Your task to perform on an android device: Open internet settings Image 0: 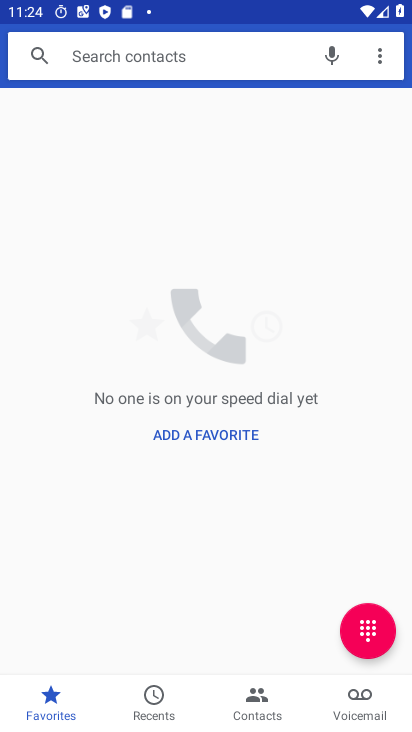
Step 0: press home button
Your task to perform on an android device: Open internet settings Image 1: 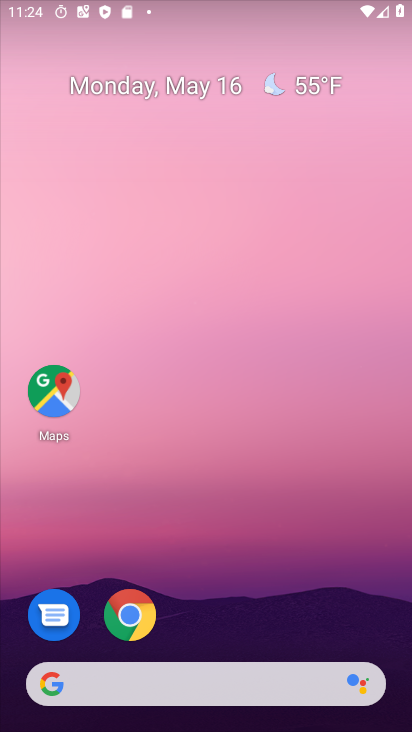
Step 1: drag from (263, 504) to (240, 22)
Your task to perform on an android device: Open internet settings Image 2: 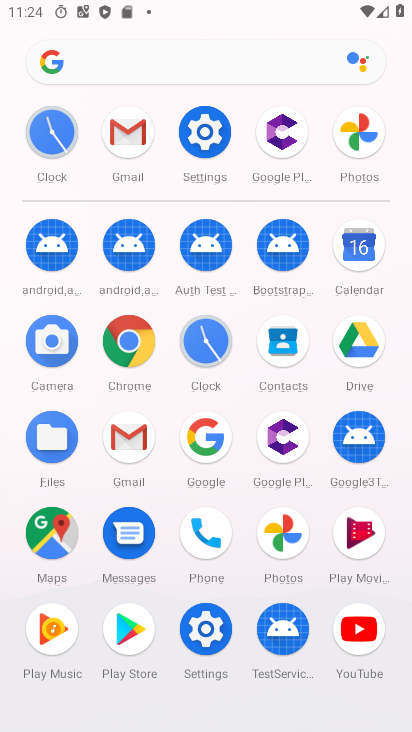
Step 2: click (204, 632)
Your task to perform on an android device: Open internet settings Image 3: 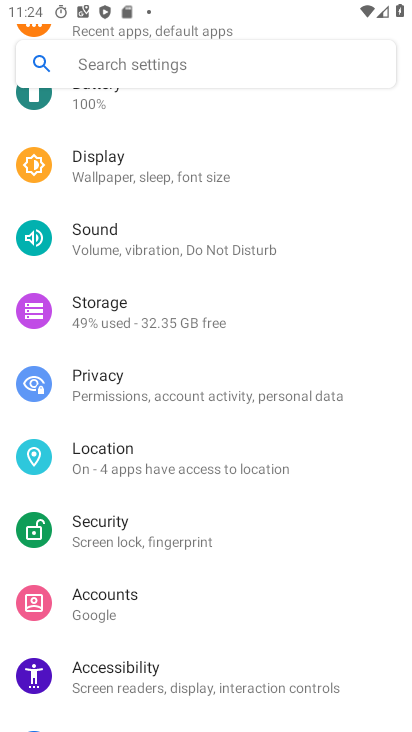
Step 3: drag from (227, 111) to (244, 526)
Your task to perform on an android device: Open internet settings Image 4: 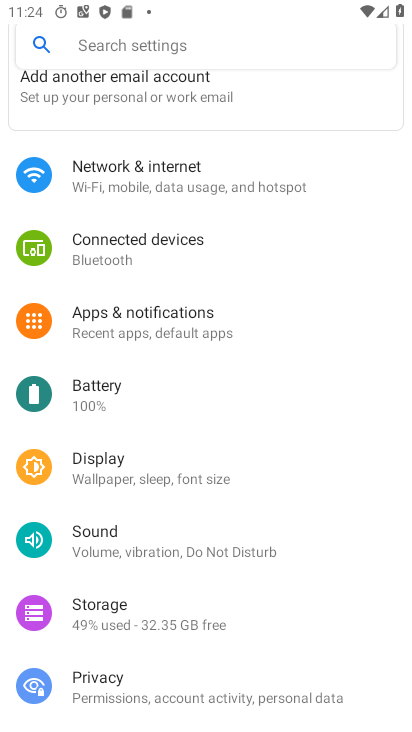
Step 4: click (103, 185)
Your task to perform on an android device: Open internet settings Image 5: 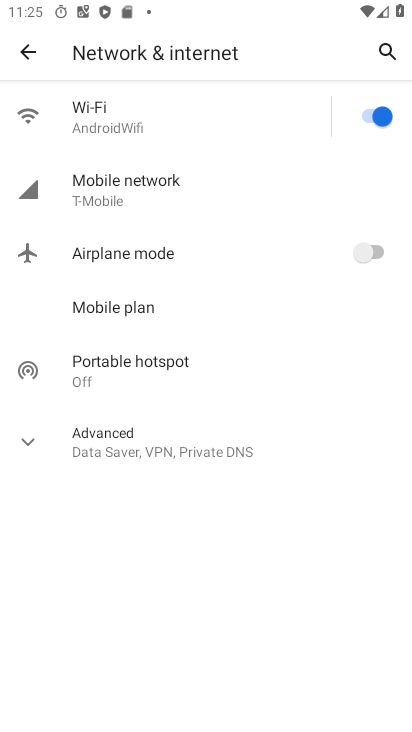
Step 5: task complete